Your task to perform on an android device: turn on airplane mode Image 0: 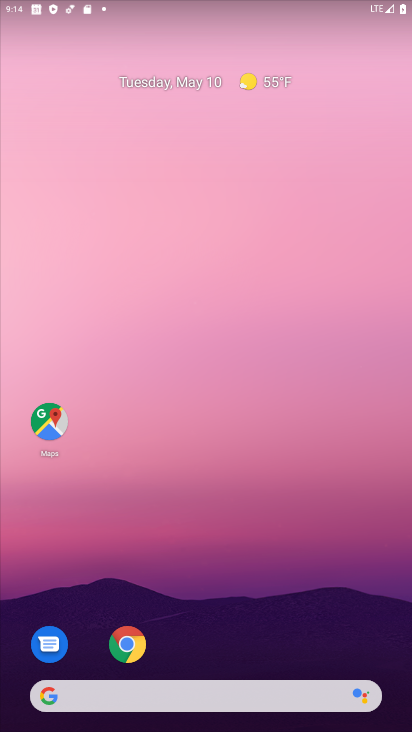
Step 0: drag from (255, 692) to (157, 215)
Your task to perform on an android device: turn on airplane mode Image 1: 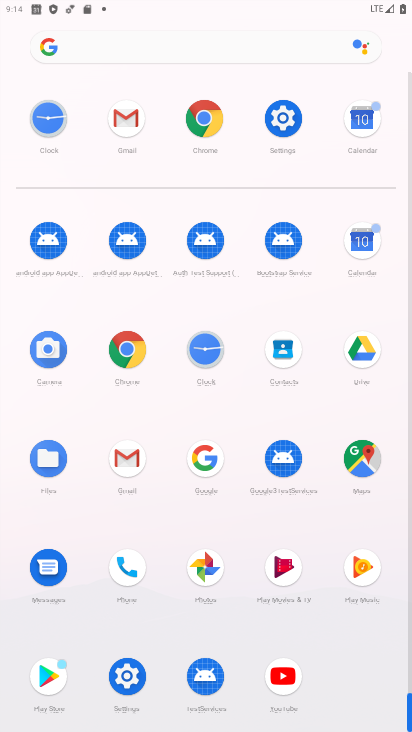
Step 1: click (289, 115)
Your task to perform on an android device: turn on airplane mode Image 2: 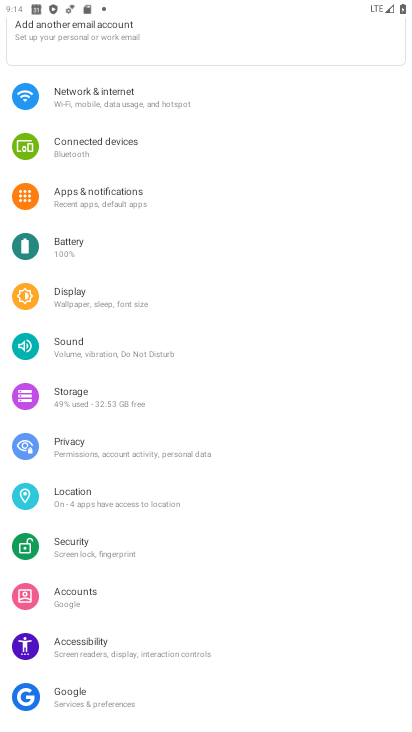
Step 2: click (221, 97)
Your task to perform on an android device: turn on airplane mode Image 3: 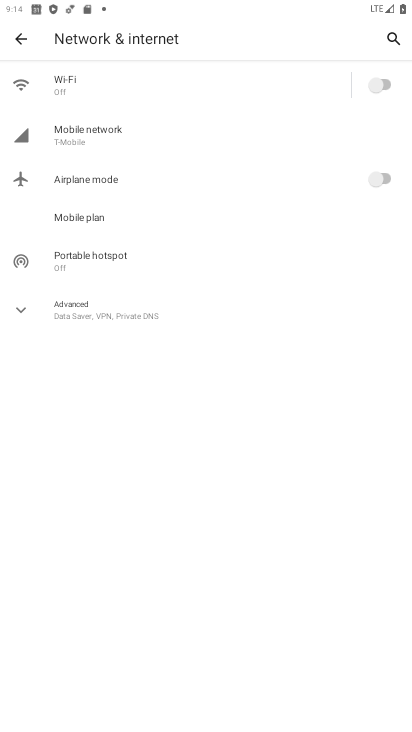
Step 3: click (289, 183)
Your task to perform on an android device: turn on airplane mode Image 4: 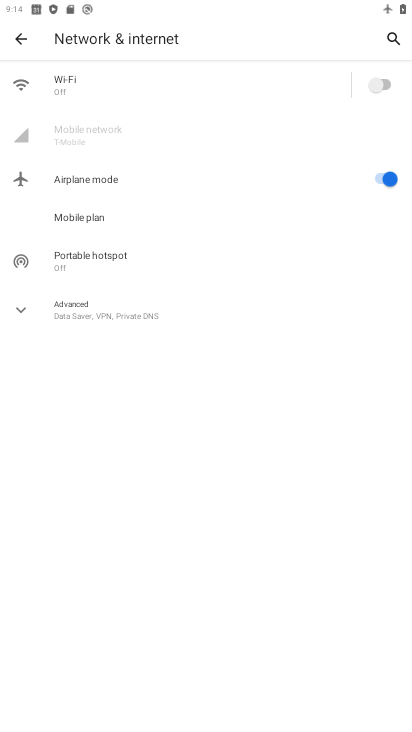
Step 4: task complete